Your task to perform on an android device: turn off translation in the chrome app Image 0: 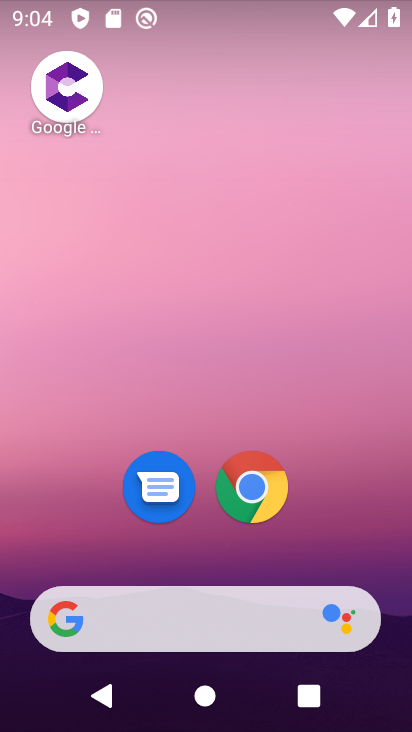
Step 0: click (234, 476)
Your task to perform on an android device: turn off translation in the chrome app Image 1: 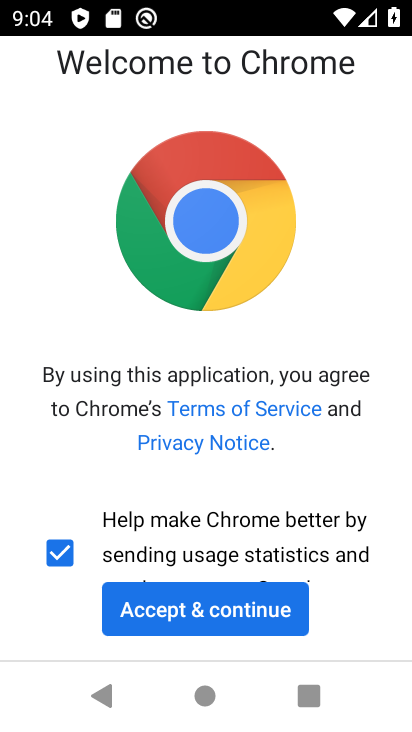
Step 1: click (214, 628)
Your task to perform on an android device: turn off translation in the chrome app Image 2: 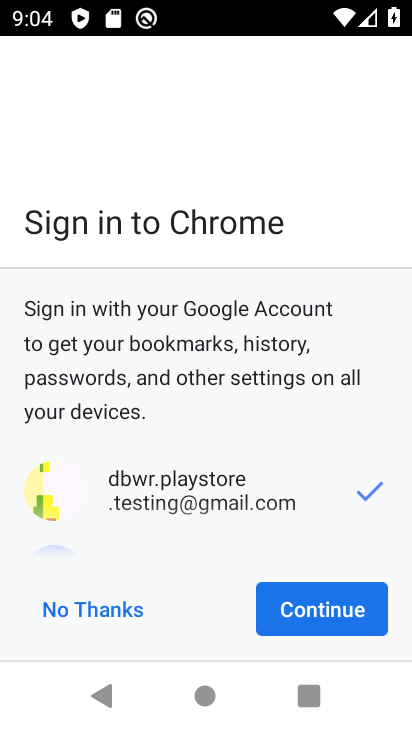
Step 2: click (324, 622)
Your task to perform on an android device: turn off translation in the chrome app Image 3: 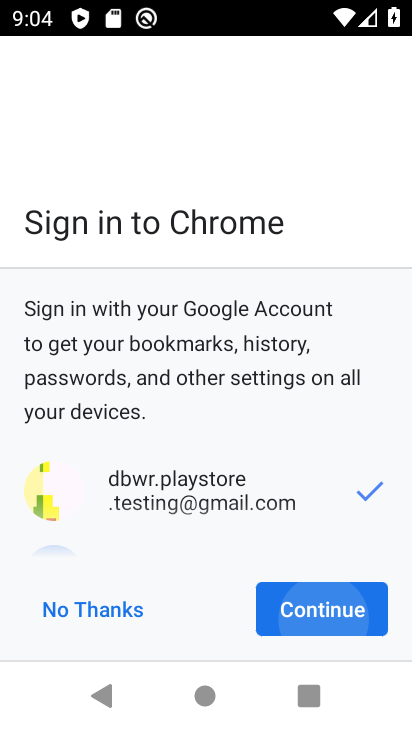
Step 3: click (324, 622)
Your task to perform on an android device: turn off translation in the chrome app Image 4: 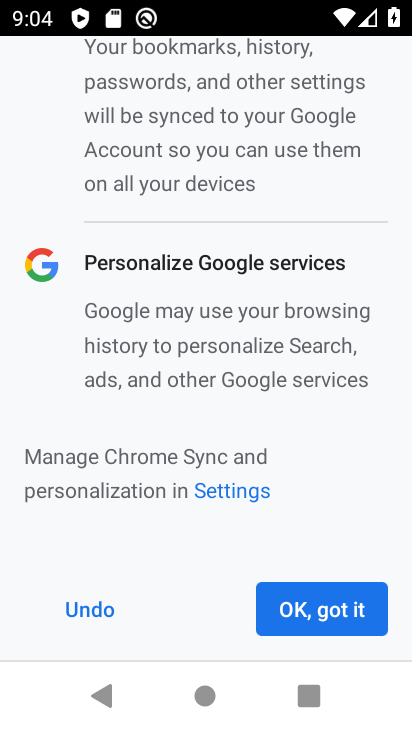
Step 4: click (324, 622)
Your task to perform on an android device: turn off translation in the chrome app Image 5: 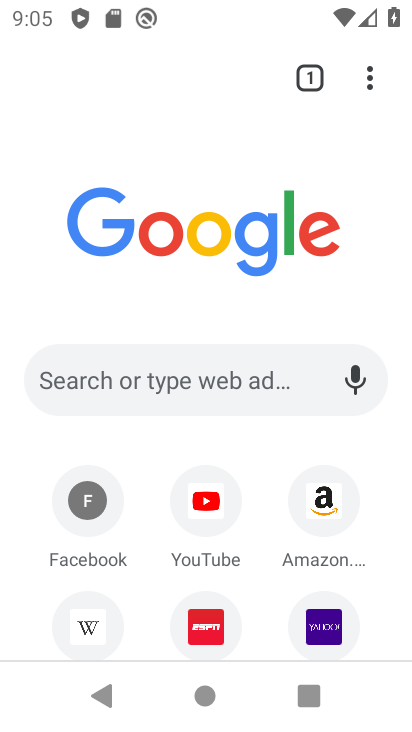
Step 5: drag from (364, 77) to (186, 576)
Your task to perform on an android device: turn off translation in the chrome app Image 6: 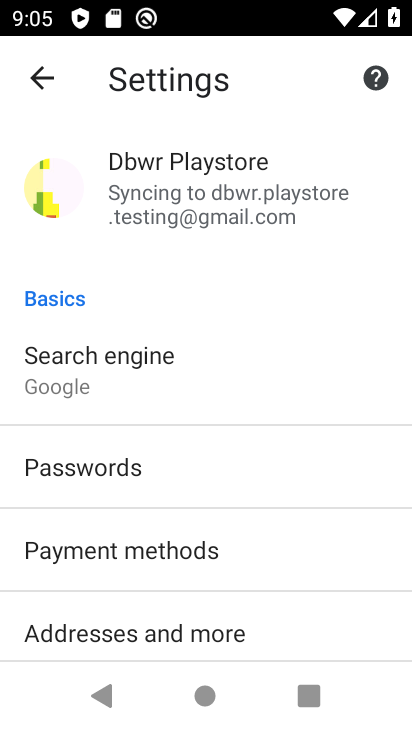
Step 6: drag from (248, 485) to (240, 228)
Your task to perform on an android device: turn off translation in the chrome app Image 7: 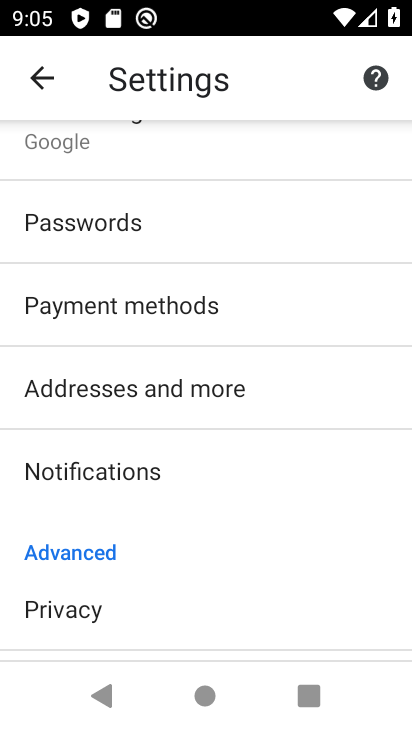
Step 7: drag from (254, 550) to (287, 46)
Your task to perform on an android device: turn off translation in the chrome app Image 8: 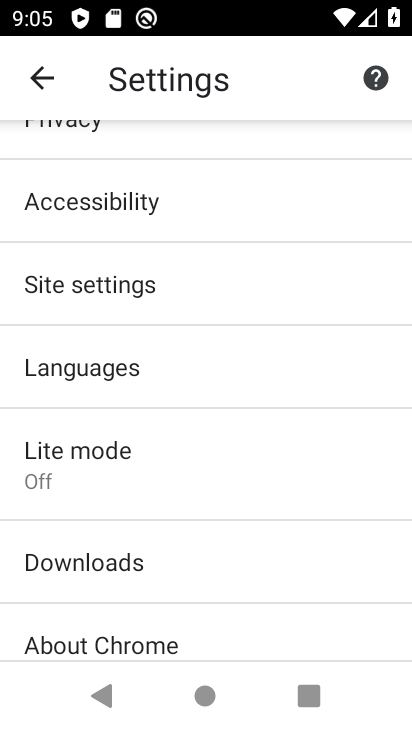
Step 8: click (153, 368)
Your task to perform on an android device: turn off translation in the chrome app Image 9: 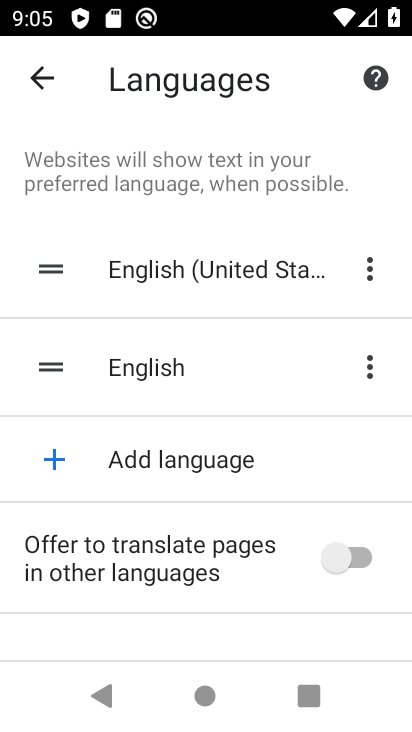
Step 9: task complete